Your task to perform on an android device: change text size in settings app Image 0: 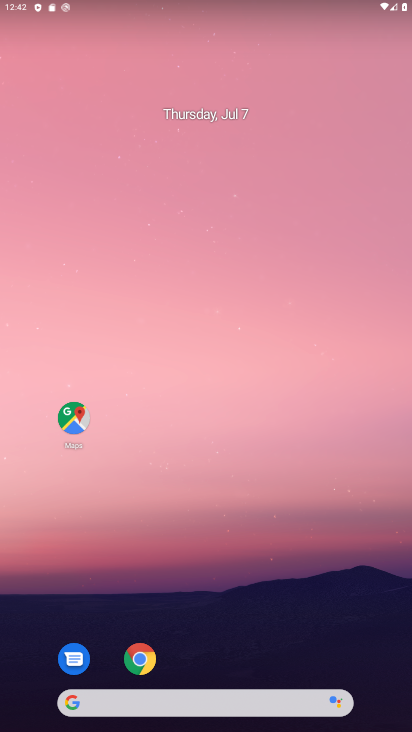
Step 0: drag from (258, 568) to (187, 92)
Your task to perform on an android device: change text size in settings app Image 1: 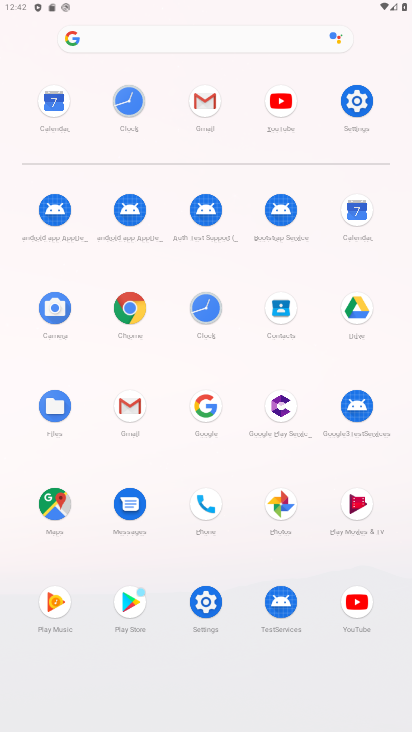
Step 1: click (362, 100)
Your task to perform on an android device: change text size in settings app Image 2: 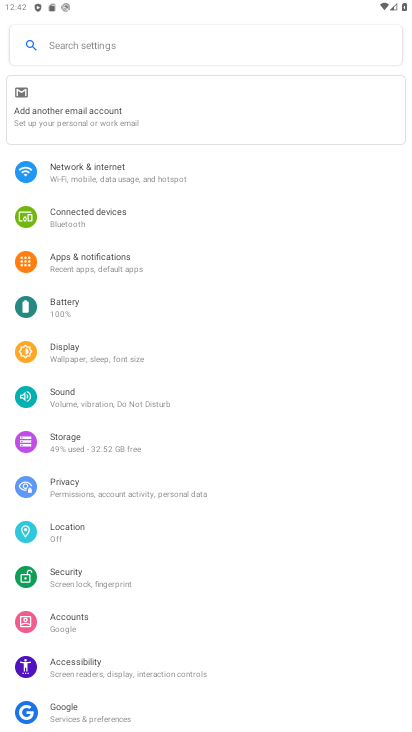
Step 2: click (72, 347)
Your task to perform on an android device: change text size in settings app Image 3: 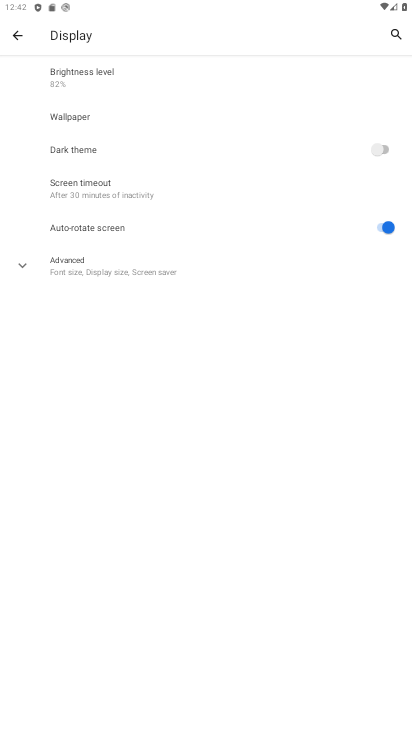
Step 3: drag from (100, 249) to (41, 205)
Your task to perform on an android device: change text size in settings app Image 4: 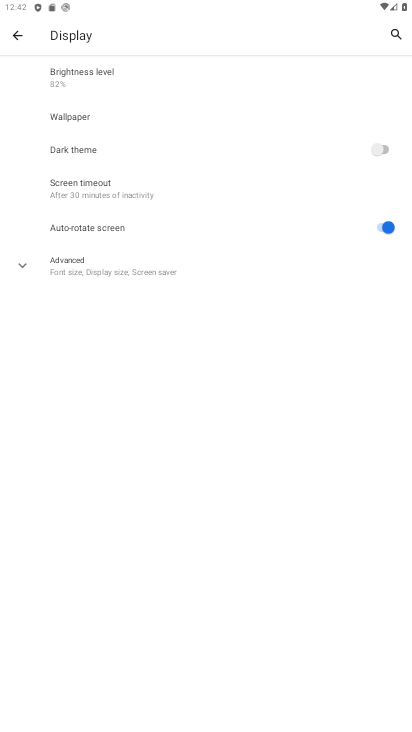
Step 4: click (55, 273)
Your task to perform on an android device: change text size in settings app Image 5: 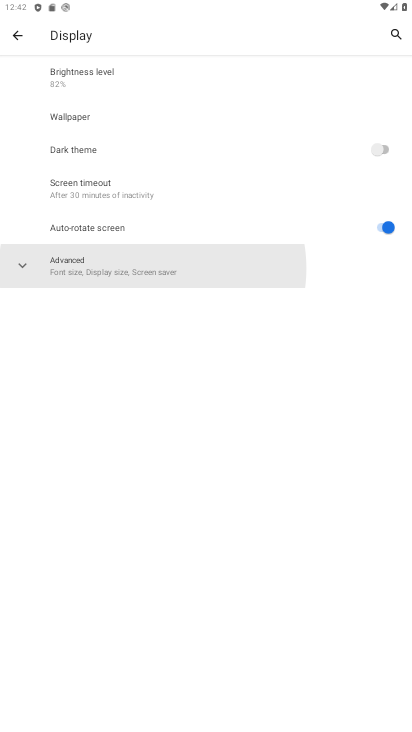
Step 5: drag from (55, 273) to (143, 484)
Your task to perform on an android device: change text size in settings app Image 6: 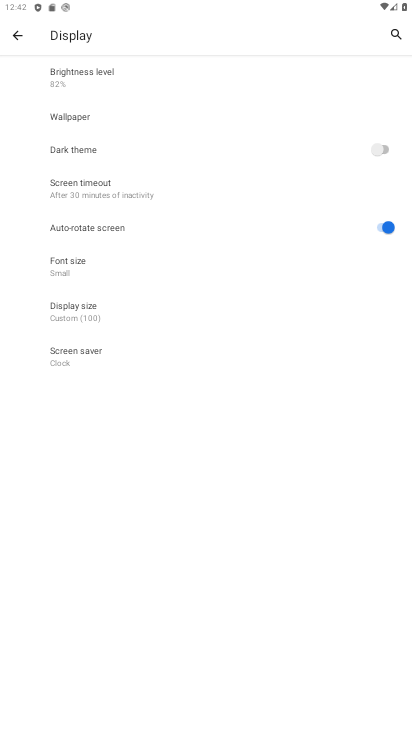
Step 6: click (86, 267)
Your task to perform on an android device: change text size in settings app Image 7: 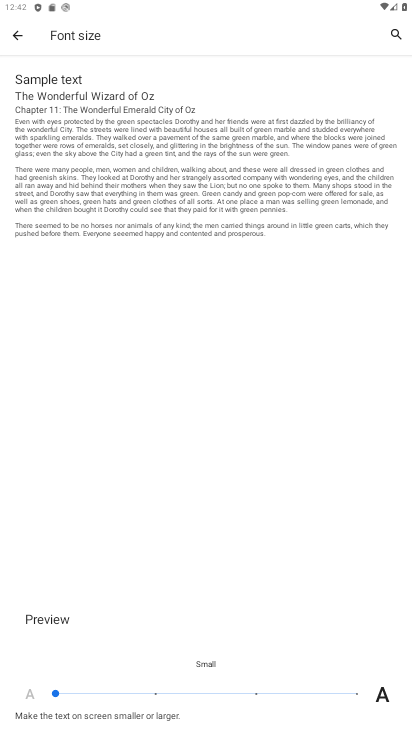
Step 7: click (139, 691)
Your task to perform on an android device: change text size in settings app Image 8: 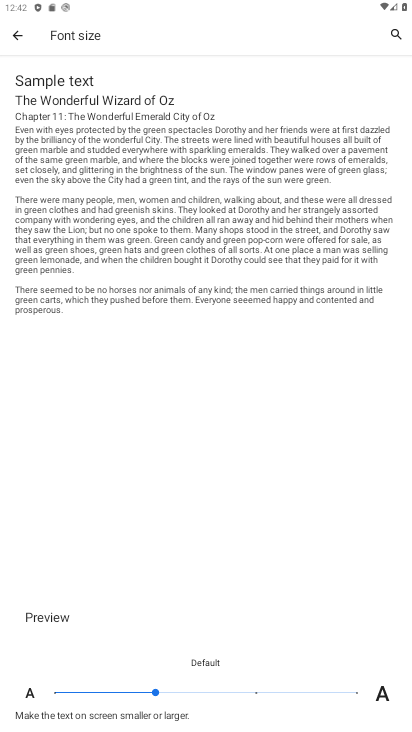
Step 8: task complete